Your task to perform on an android device: Open privacy settings Image 0: 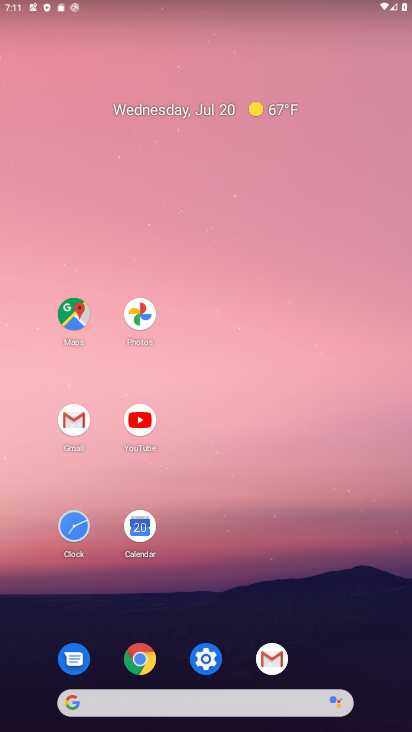
Step 0: click (207, 655)
Your task to perform on an android device: Open privacy settings Image 1: 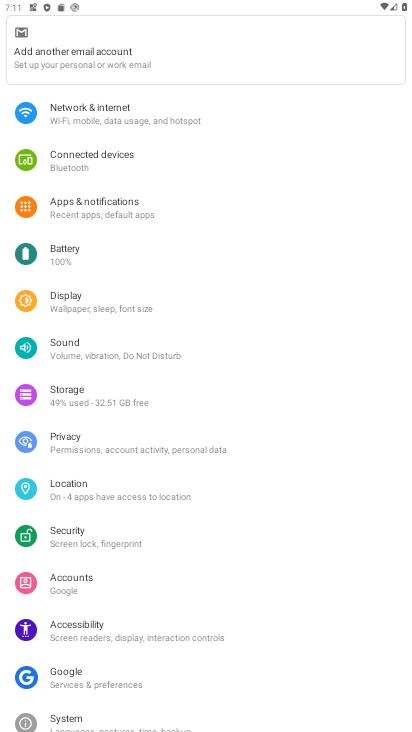
Step 1: click (63, 434)
Your task to perform on an android device: Open privacy settings Image 2: 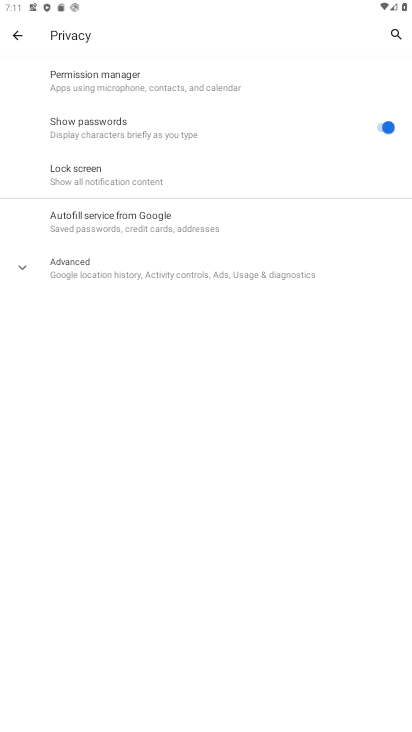
Step 2: task complete